Your task to perform on an android device: toggle translation in the chrome app Image 0: 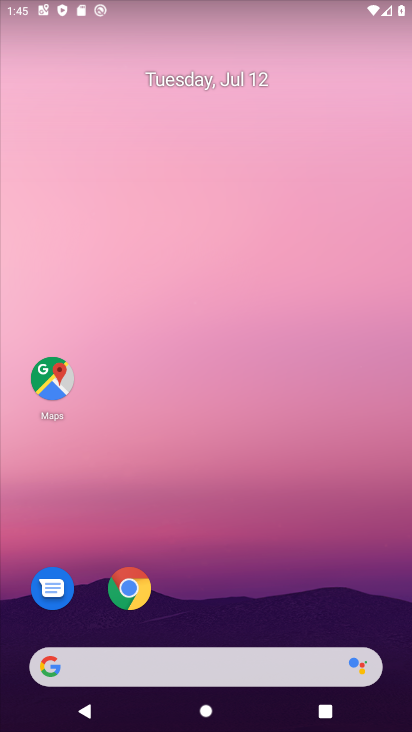
Step 0: drag from (201, 615) to (188, 248)
Your task to perform on an android device: toggle translation in the chrome app Image 1: 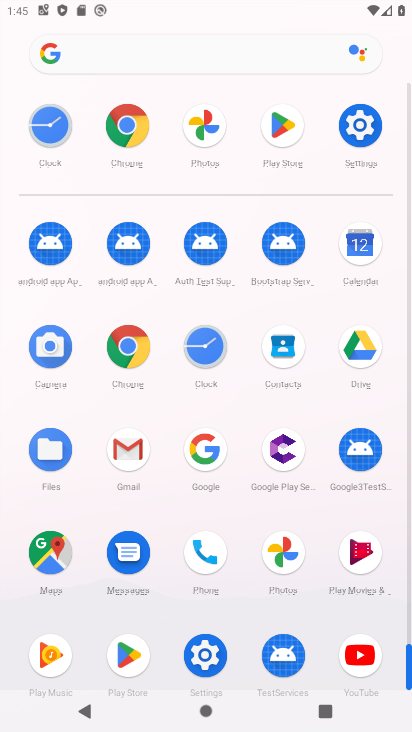
Step 1: click (126, 343)
Your task to perform on an android device: toggle translation in the chrome app Image 2: 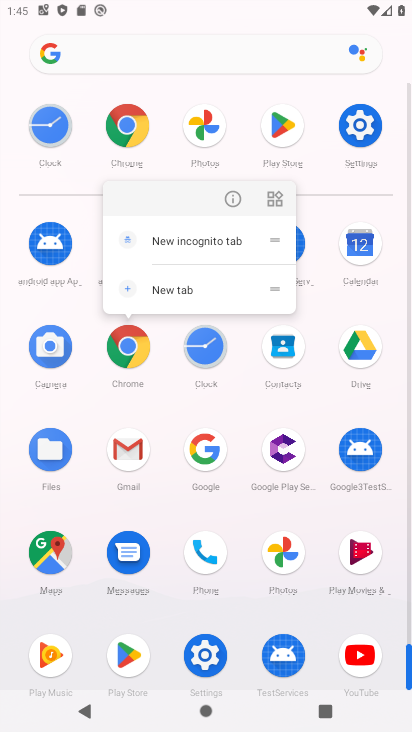
Step 2: click (235, 191)
Your task to perform on an android device: toggle translation in the chrome app Image 3: 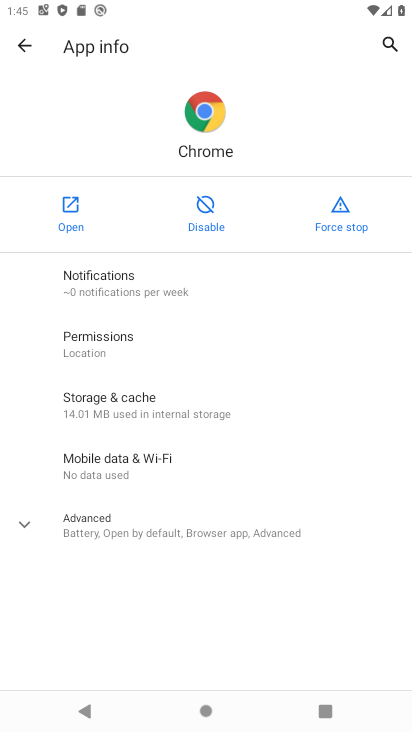
Step 3: click (73, 221)
Your task to perform on an android device: toggle translation in the chrome app Image 4: 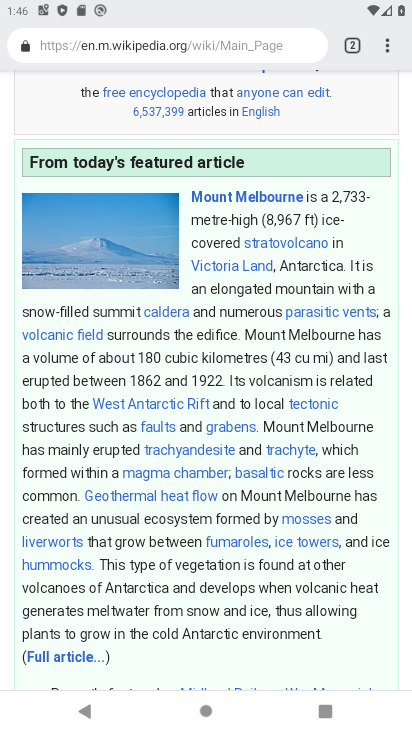
Step 4: drag from (219, 577) to (304, 150)
Your task to perform on an android device: toggle translation in the chrome app Image 5: 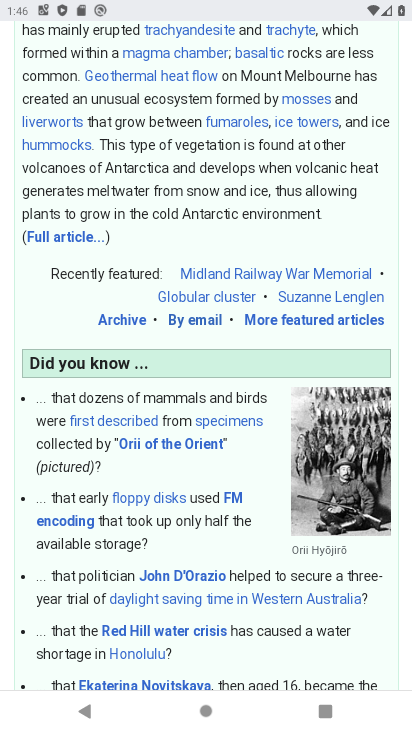
Step 5: drag from (200, 175) to (283, 716)
Your task to perform on an android device: toggle translation in the chrome app Image 6: 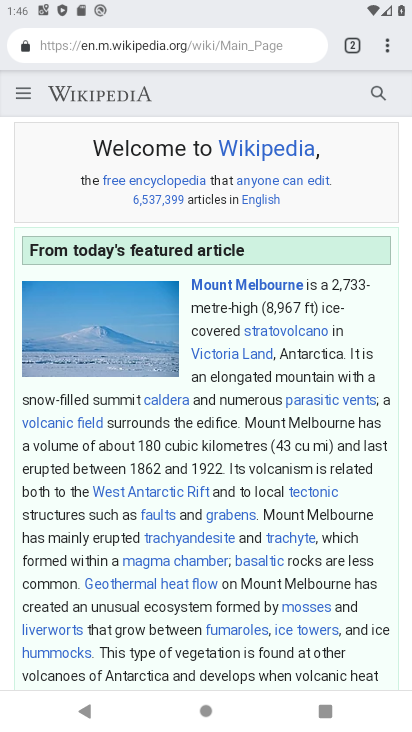
Step 6: click (385, 49)
Your task to perform on an android device: toggle translation in the chrome app Image 7: 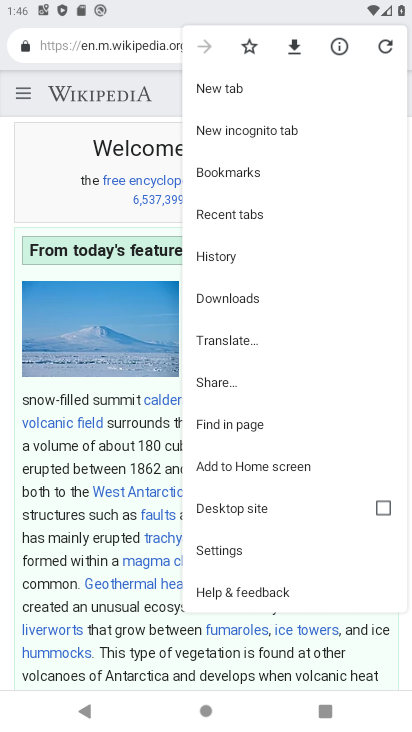
Step 7: drag from (244, 491) to (300, 176)
Your task to perform on an android device: toggle translation in the chrome app Image 8: 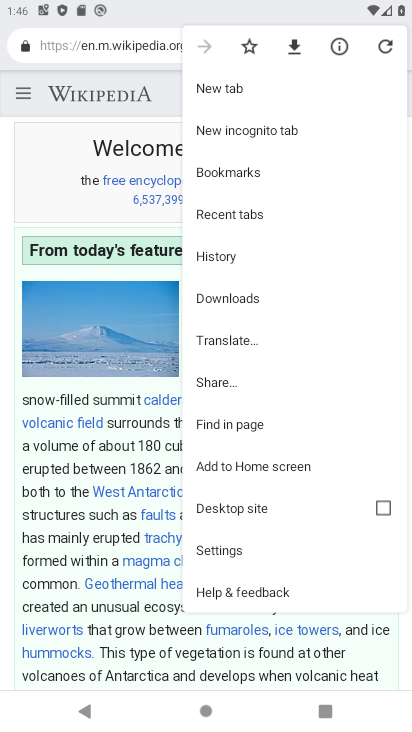
Step 8: click (223, 552)
Your task to perform on an android device: toggle translation in the chrome app Image 9: 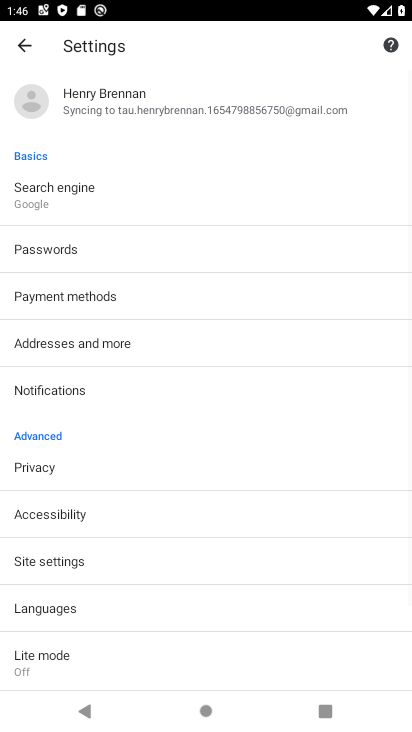
Step 9: drag from (182, 457) to (306, 178)
Your task to perform on an android device: toggle translation in the chrome app Image 10: 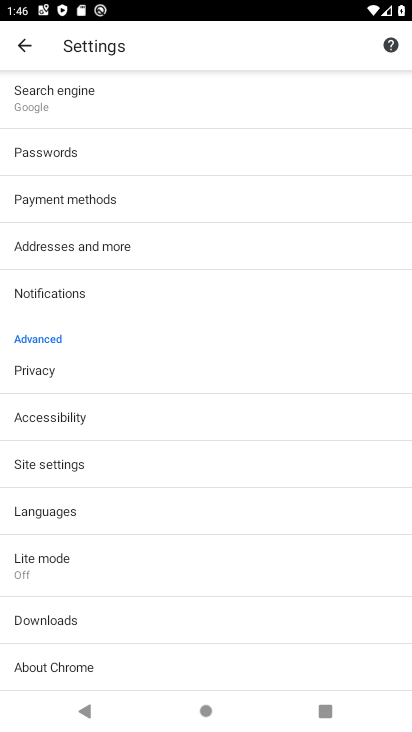
Step 10: drag from (178, 231) to (245, 671)
Your task to perform on an android device: toggle translation in the chrome app Image 11: 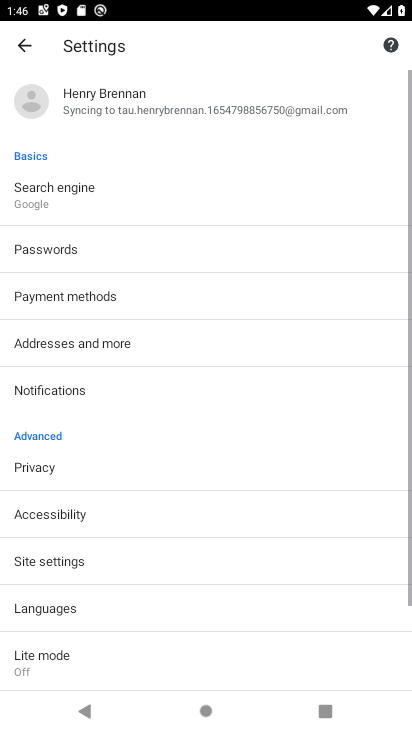
Step 11: drag from (186, 652) to (283, 222)
Your task to perform on an android device: toggle translation in the chrome app Image 12: 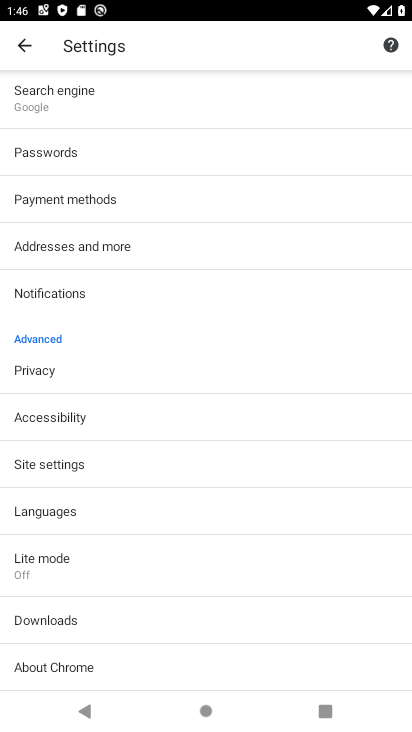
Step 12: drag from (104, 473) to (239, 229)
Your task to perform on an android device: toggle translation in the chrome app Image 13: 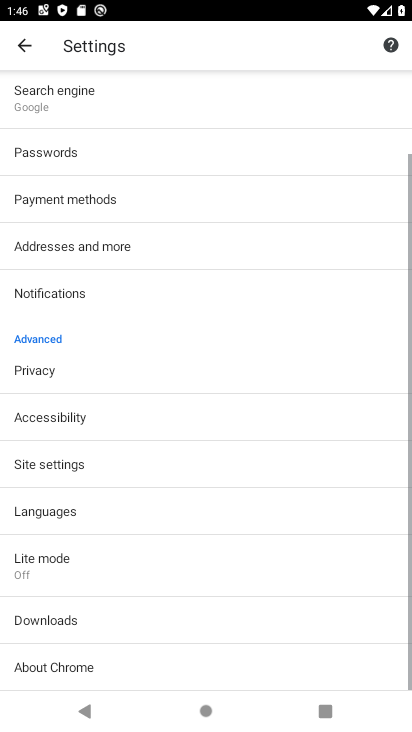
Step 13: click (77, 519)
Your task to perform on an android device: toggle translation in the chrome app Image 14: 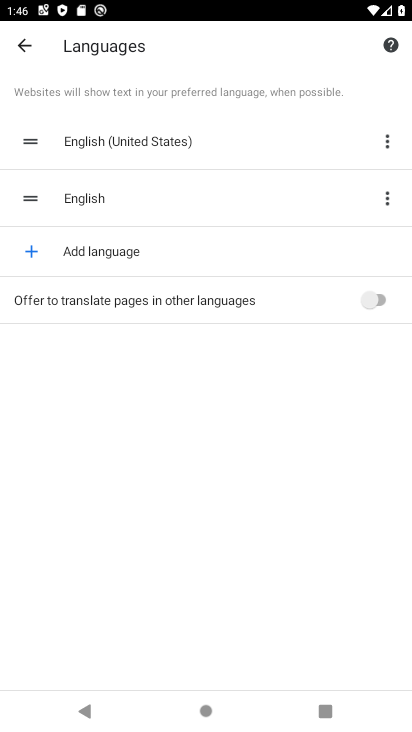
Step 14: drag from (217, 469) to (292, 222)
Your task to perform on an android device: toggle translation in the chrome app Image 15: 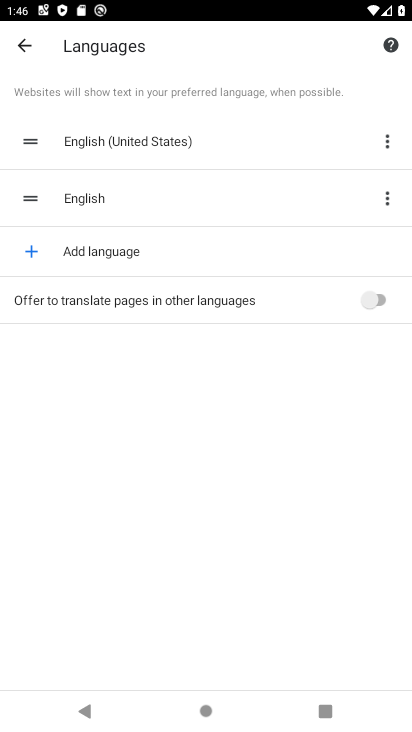
Step 15: click (261, 299)
Your task to perform on an android device: toggle translation in the chrome app Image 16: 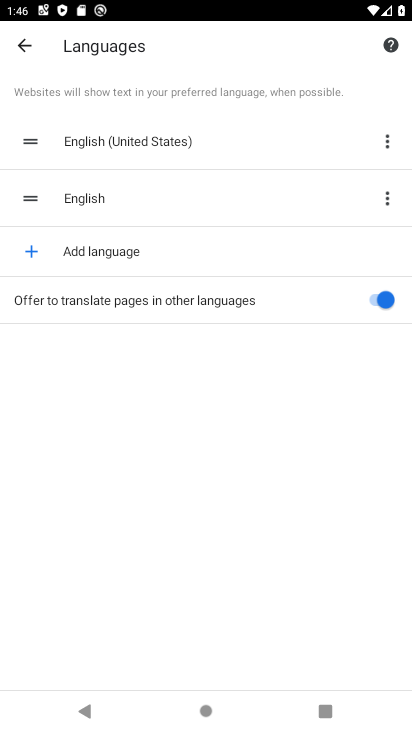
Step 16: task complete